Your task to perform on an android device: Open Youtube and go to "Your channel" Image 0: 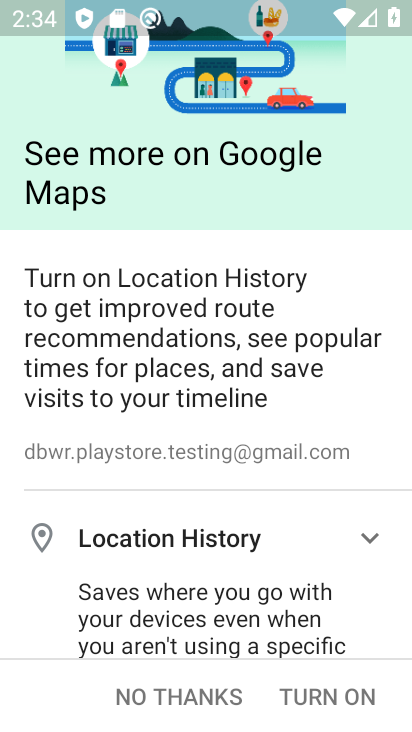
Step 0: click (292, 703)
Your task to perform on an android device: Open Youtube and go to "Your channel" Image 1: 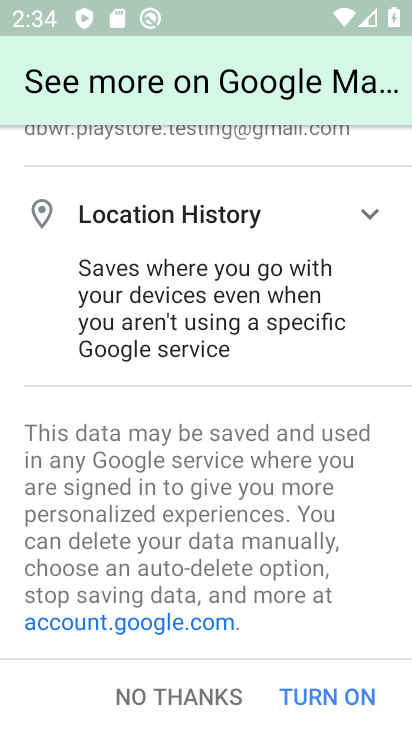
Step 1: click (301, 679)
Your task to perform on an android device: Open Youtube and go to "Your channel" Image 2: 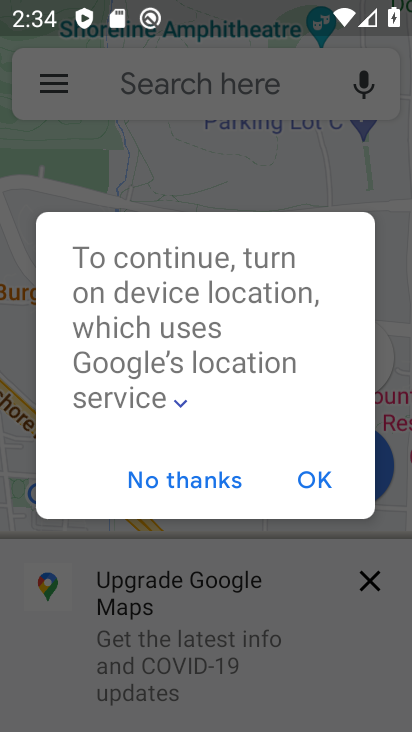
Step 2: press home button
Your task to perform on an android device: Open Youtube and go to "Your channel" Image 3: 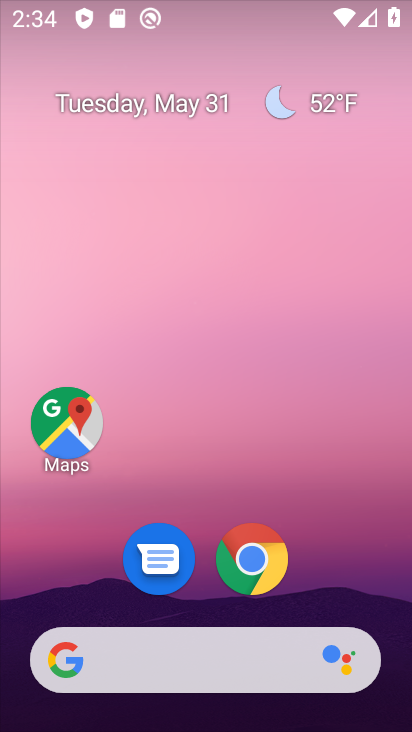
Step 3: press home button
Your task to perform on an android device: Open Youtube and go to "Your channel" Image 4: 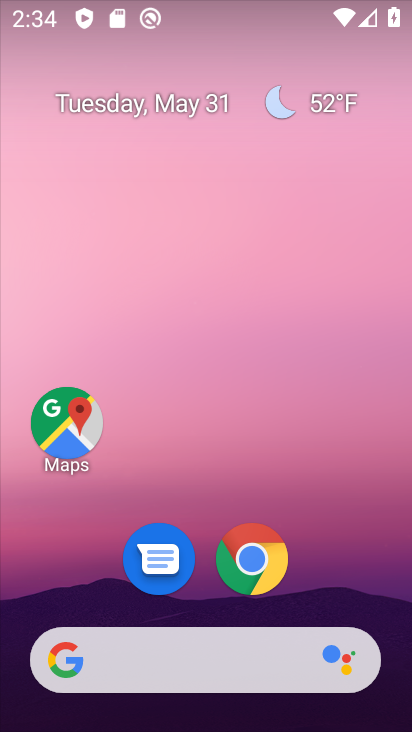
Step 4: drag from (202, 604) to (238, 148)
Your task to perform on an android device: Open Youtube and go to "Your channel" Image 5: 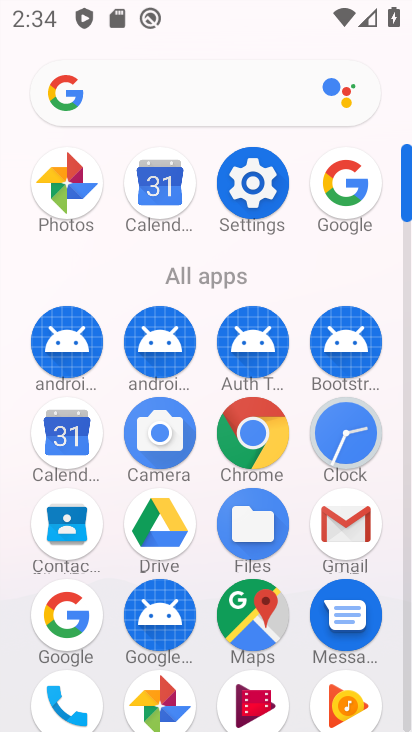
Step 5: drag from (196, 556) to (189, 120)
Your task to perform on an android device: Open Youtube and go to "Your channel" Image 6: 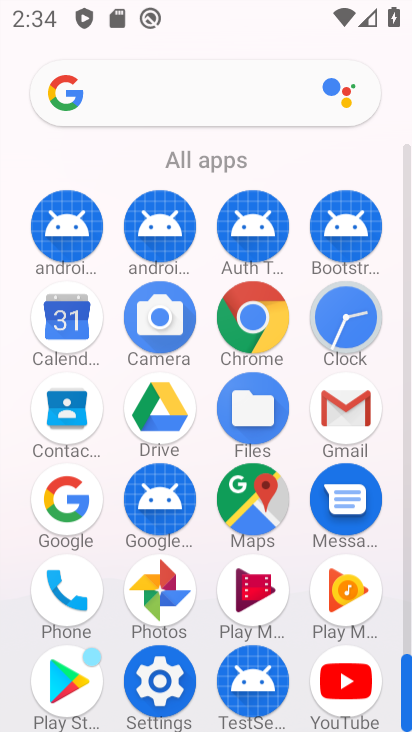
Step 6: click (344, 686)
Your task to perform on an android device: Open Youtube and go to "Your channel" Image 7: 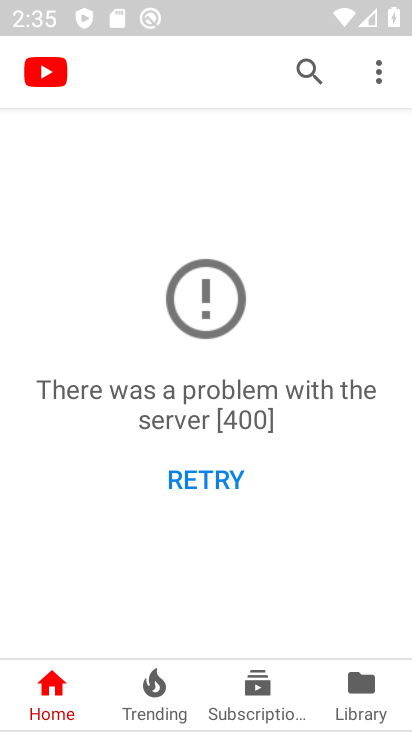
Step 7: task complete